Your task to perform on an android device: Open the calendar and show me this week's events? Image 0: 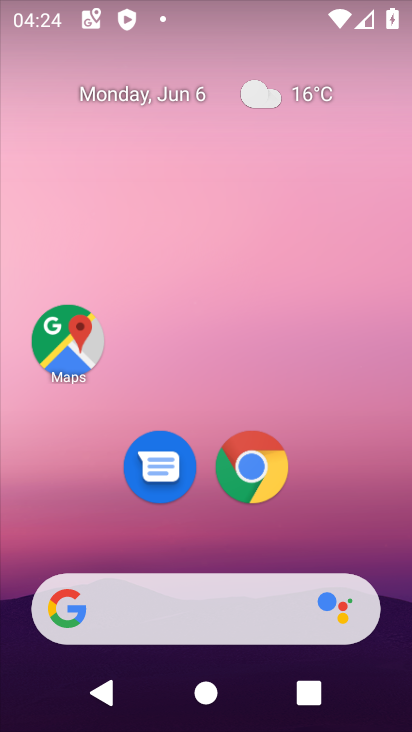
Step 0: press home button
Your task to perform on an android device: Open the calendar and show me this week's events? Image 1: 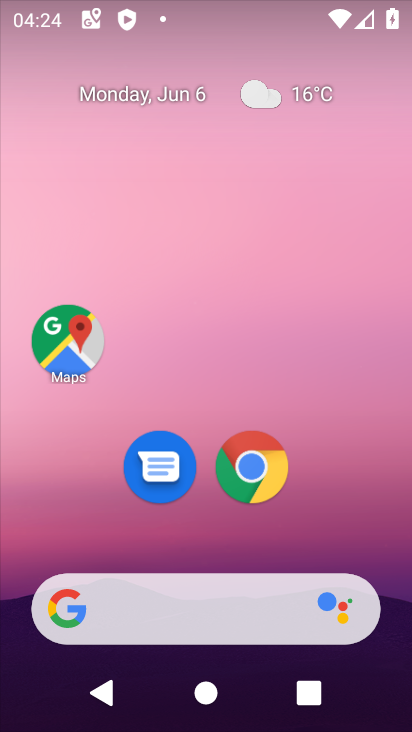
Step 1: drag from (211, 550) to (237, 66)
Your task to perform on an android device: Open the calendar and show me this week's events? Image 2: 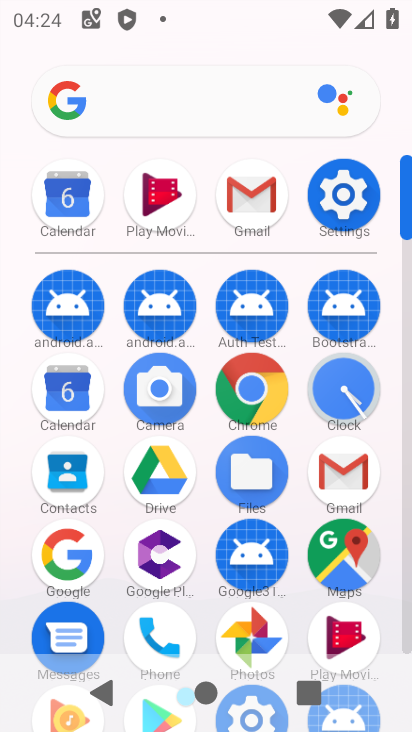
Step 2: click (63, 190)
Your task to perform on an android device: Open the calendar and show me this week's events? Image 3: 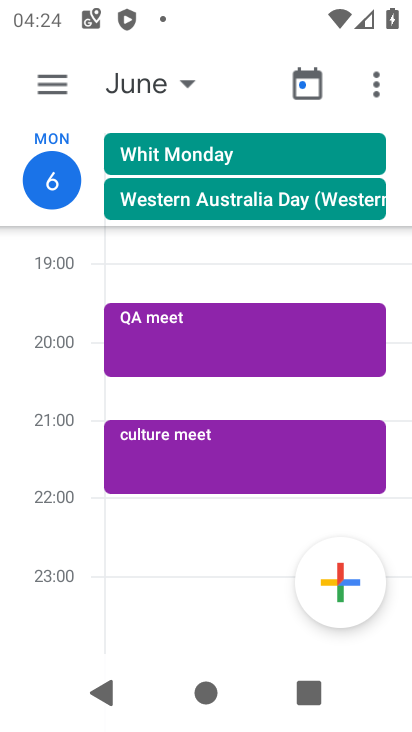
Step 3: click (88, 198)
Your task to perform on an android device: Open the calendar and show me this week's events? Image 4: 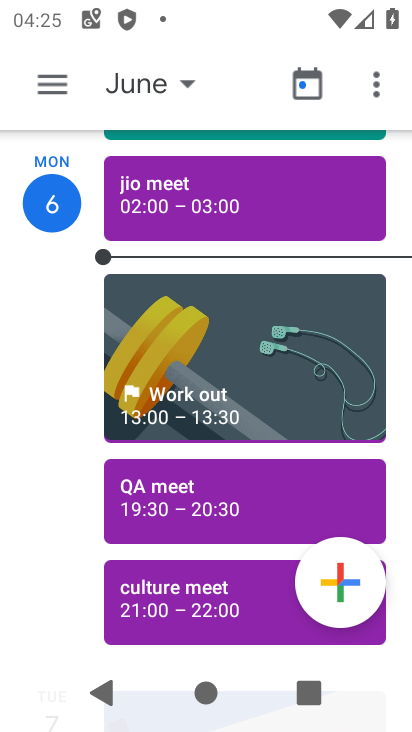
Step 4: click (65, 153)
Your task to perform on an android device: Open the calendar and show me this week's events? Image 5: 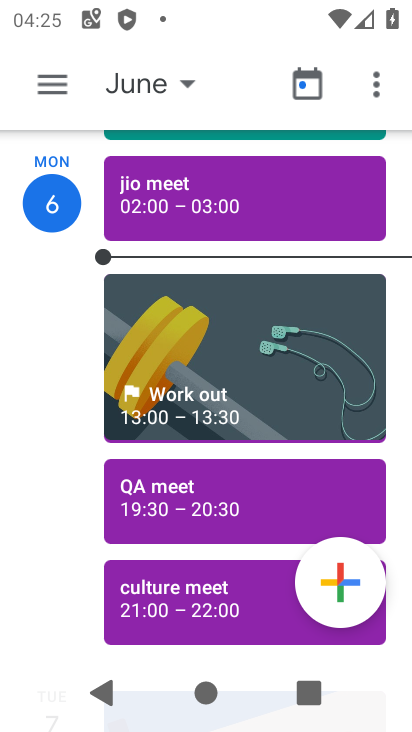
Step 5: drag from (62, 565) to (61, 136)
Your task to perform on an android device: Open the calendar and show me this week's events? Image 6: 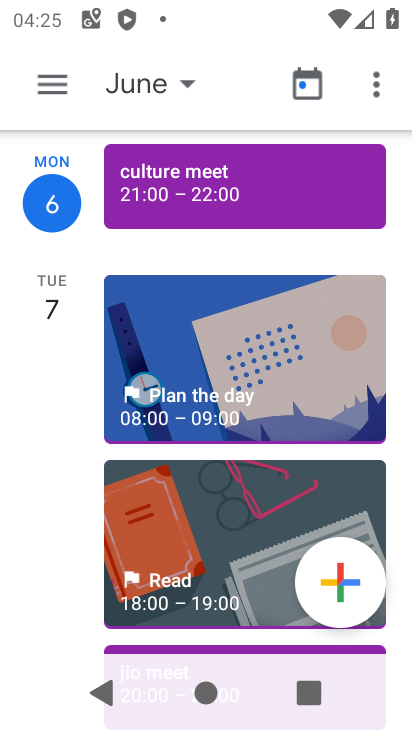
Step 6: drag from (63, 579) to (72, 292)
Your task to perform on an android device: Open the calendar and show me this week's events? Image 7: 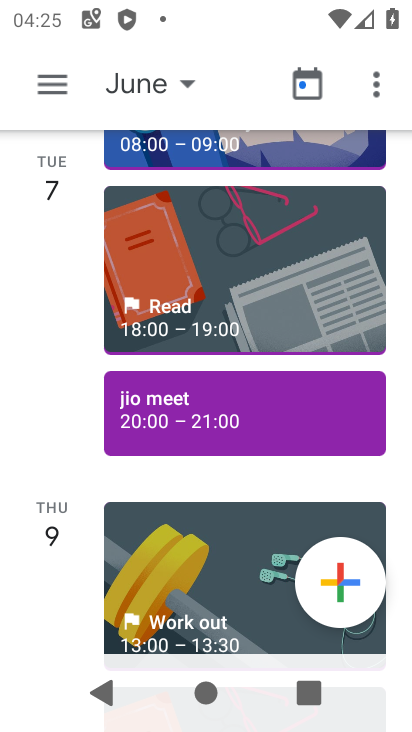
Step 7: click (65, 89)
Your task to perform on an android device: Open the calendar and show me this week's events? Image 8: 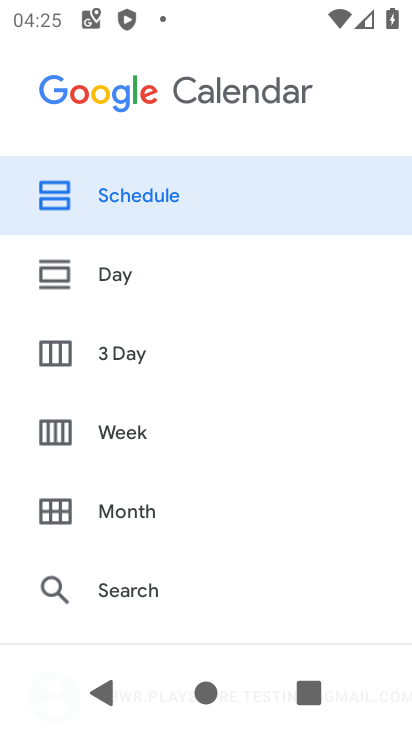
Step 8: drag from (118, 573) to (144, 172)
Your task to perform on an android device: Open the calendar and show me this week's events? Image 9: 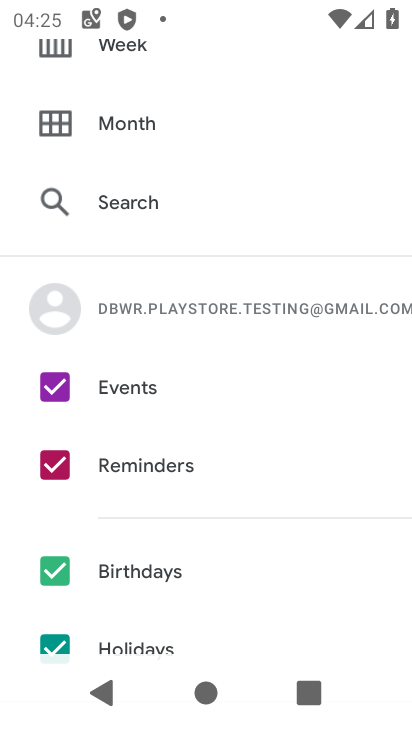
Step 9: click (60, 463)
Your task to perform on an android device: Open the calendar and show me this week's events? Image 10: 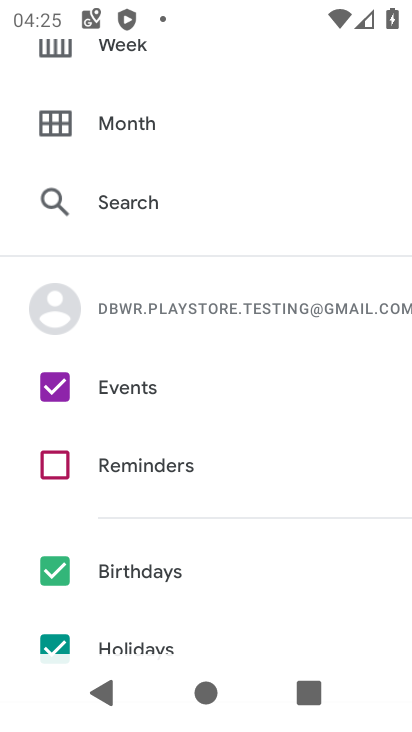
Step 10: click (53, 571)
Your task to perform on an android device: Open the calendar and show me this week's events? Image 11: 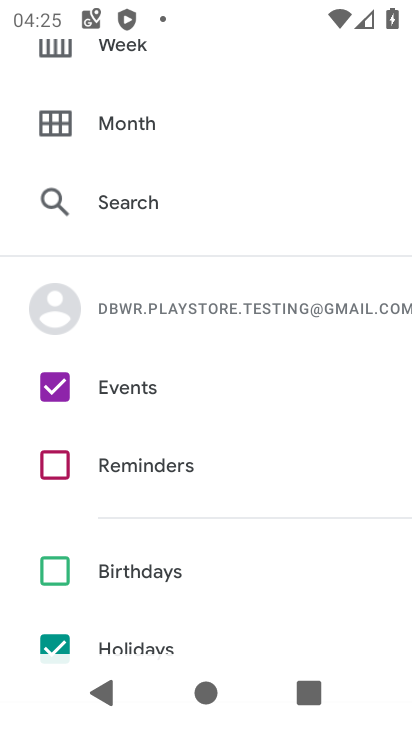
Step 11: click (55, 638)
Your task to perform on an android device: Open the calendar and show me this week's events? Image 12: 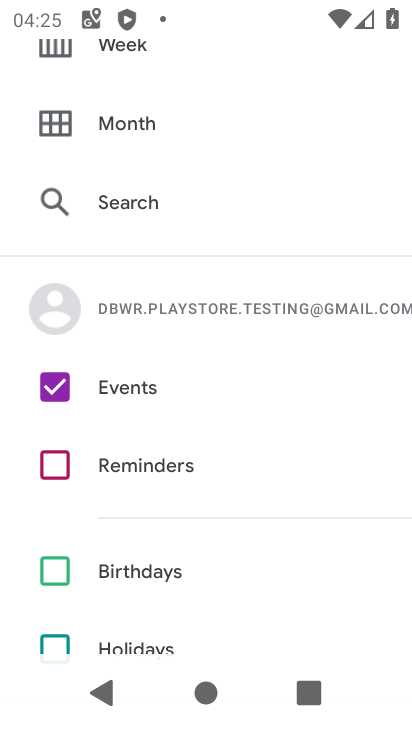
Step 12: task complete